Your task to perform on an android device: Open Reddit.com Image 0: 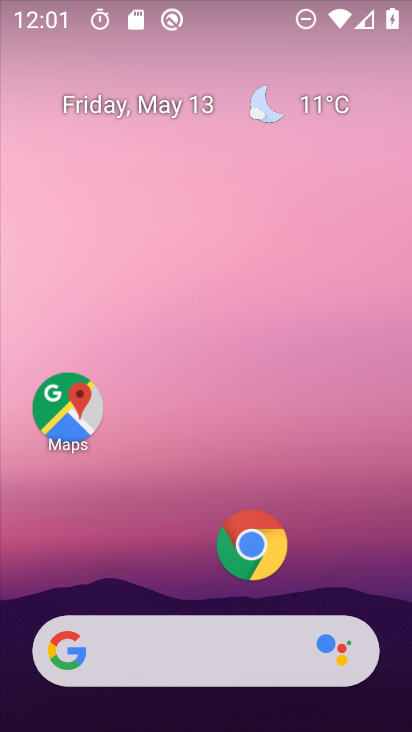
Step 0: press home button
Your task to perform on an android device: Open Reddit.com Image 1: 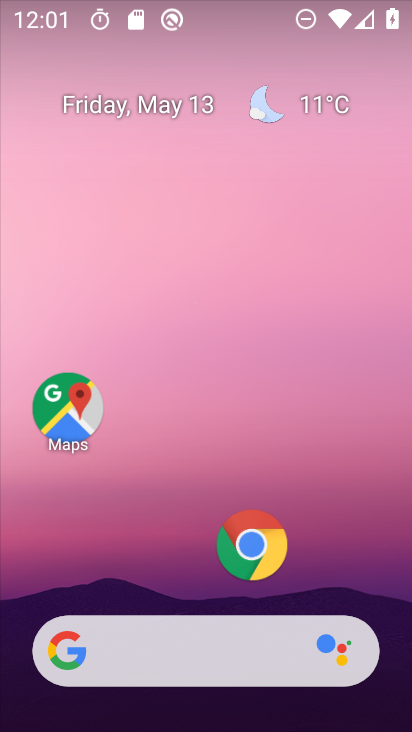
Step 1: click (256, 537)
Your task to perform on an android device: Open Reddit.com Image 2: 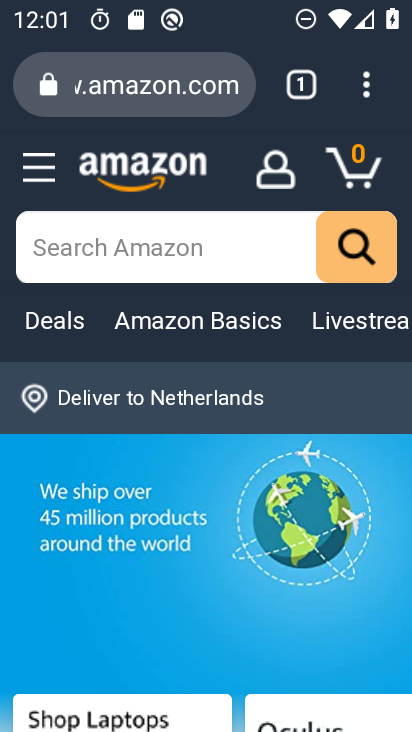
Step 2: click (298, 86)
Your task to perform on an android device: Open Reddit.com Image 3: 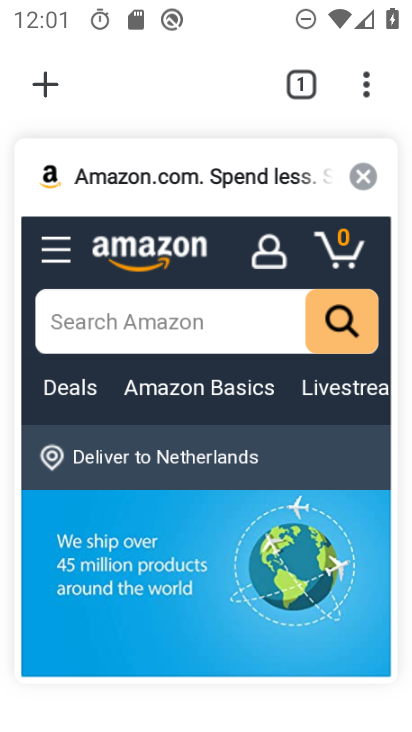
Step 3: click (361, 171)
Your task to perform on an android device: Open Reddit.com Image 4: 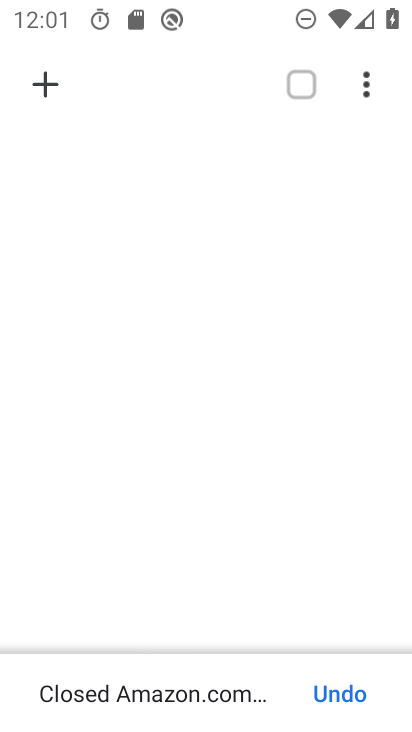
Step 4: click (48, 81)
Your task to perform on an android device: Open Reddit.com Image 5: 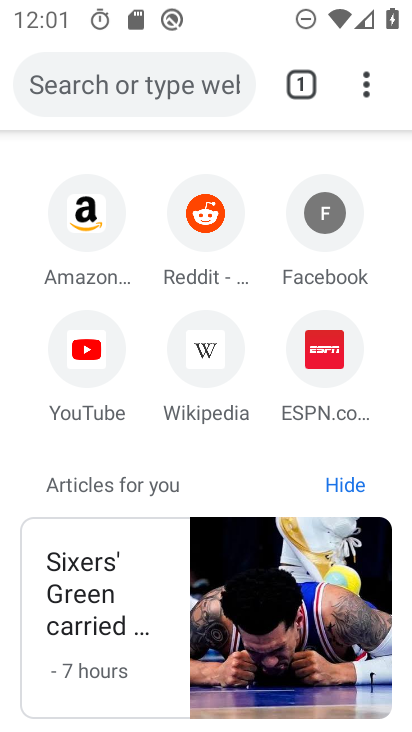
Step 5: click (205, 212)
Your task to perform on an android device: Open Reddit.com Image 6: 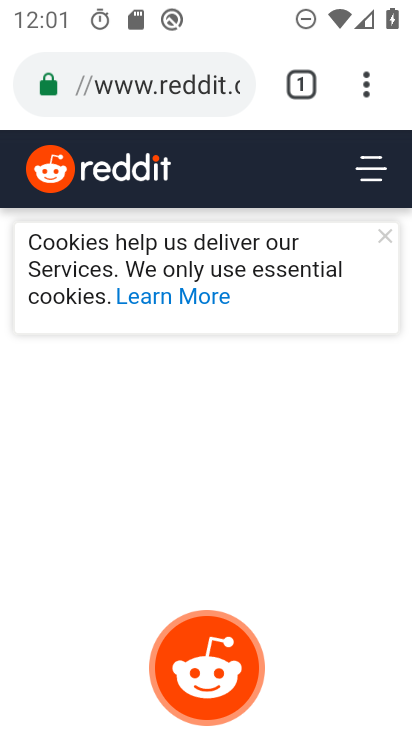
Step 6: task complete